Your task to perform on an android device: toggle show notifications on the lock screen Image 0: 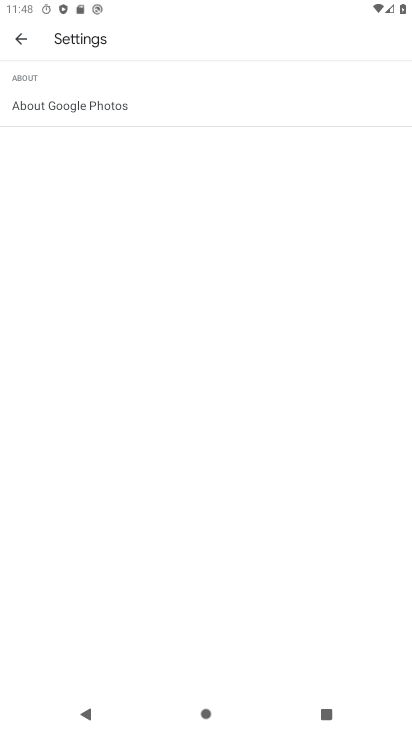
Step 0: press home button
Your task to perform on an android device: toggle show notifications on the lock screen Image 1: 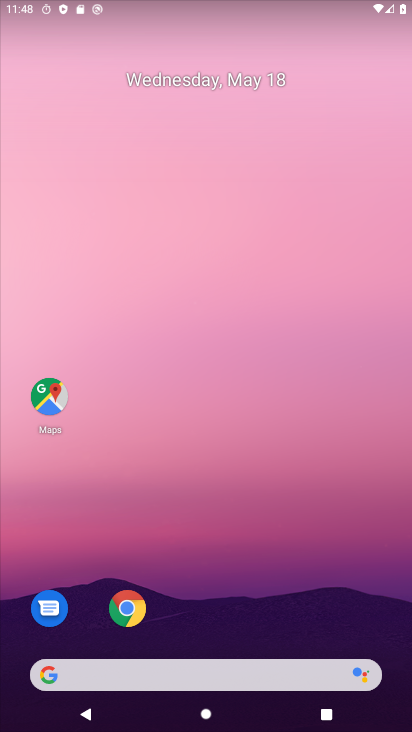
Step 1: drag from (245, 636) to (177, 163)
Your task to perform on an android device: toggle show notifications on the lock screen Image 2: 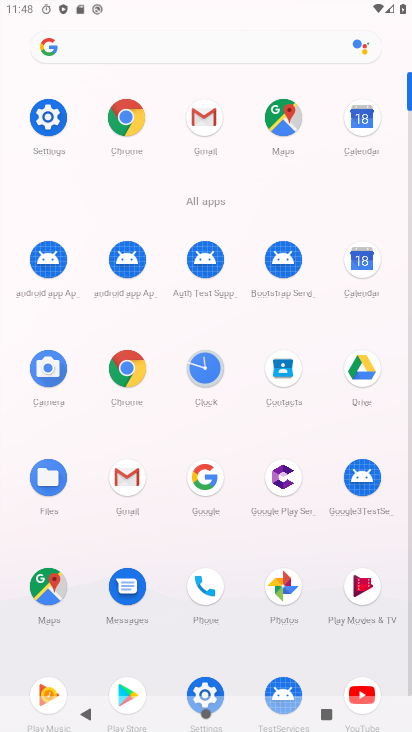
Step 2: click (43, 122)
Your task to perform on an android device: toggle show notifications on the lock screen Image 3: 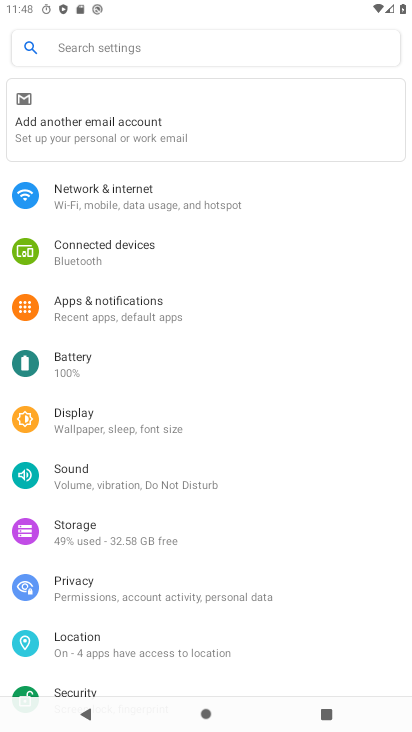
Step 3: click (119, 305)
Your task to perform on an android device: toggle show notifications on the lock screen Image 4: 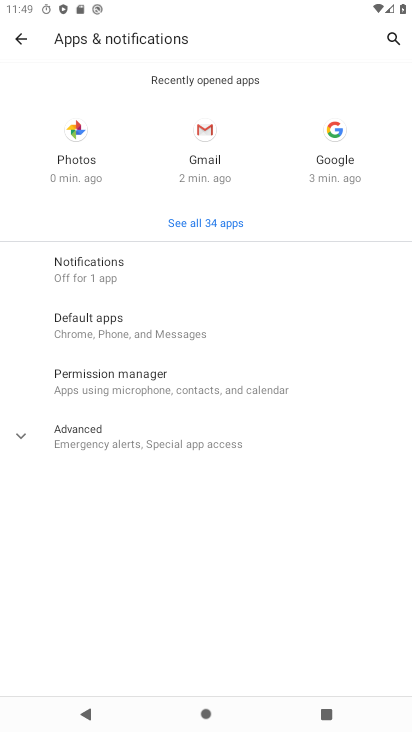
Step 4: press home button
Your task to perform on an android device: toggle show notifications on the lock screen Image 5: 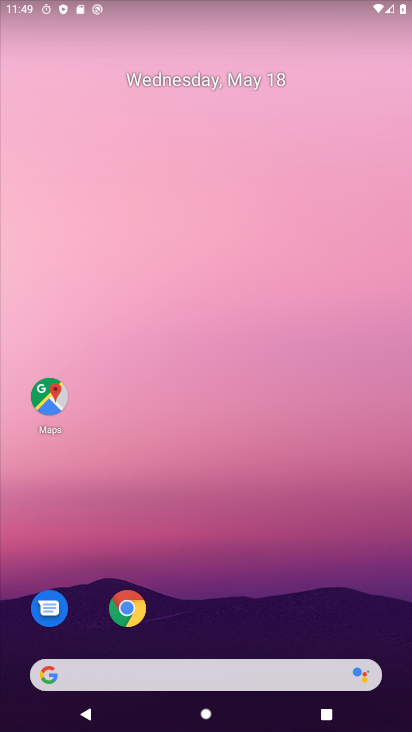
Step 5: drag from (216, 620) to (134, 176)
Your task to perform on an android device: toggle show notifications on the lock screen Image 6: 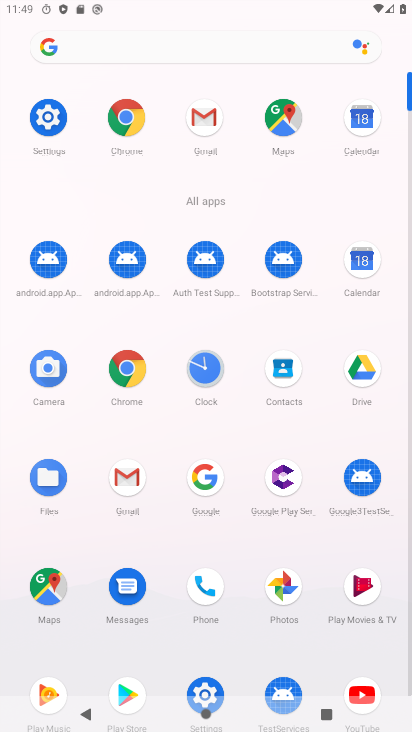
Step 6: click (37, 124)
Your task to perform on an android device: toggle show notifications on the lock screen Image 7: 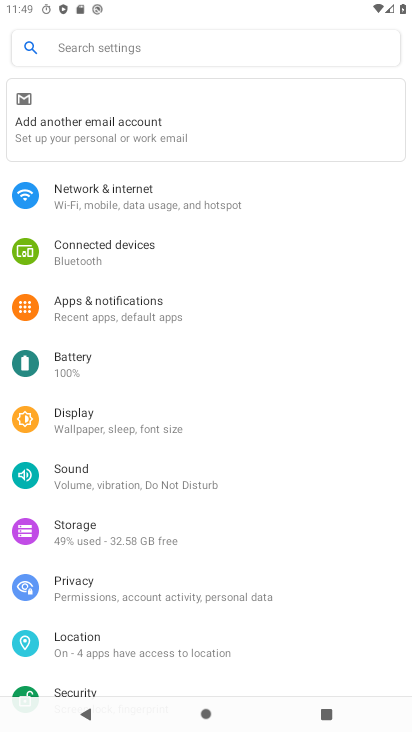
Step 7: click (181, 295)
Your task to perform on an android device: toggle show notifications on the lock screen Image 8: 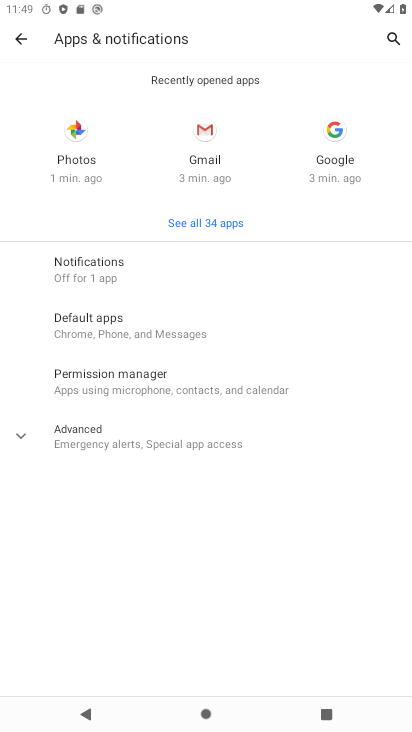
Step 8: click (178, 282)
Your task to perform on an android device: toggle show notifications on the lock screen Image 9: 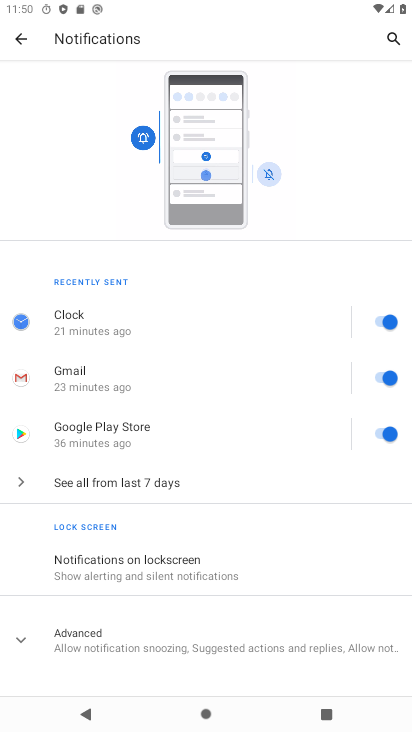
Step 9: click (225, 552)
Your task to perform on an android device: toggle show notifications on the lock screen Image 10: 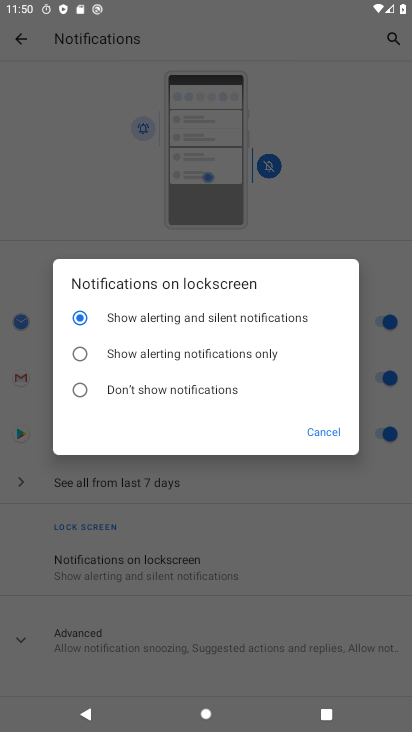
Step 10: click (256, 352)
Your task to perform on an android device: toggle show notifications on the lock screen Image 11: 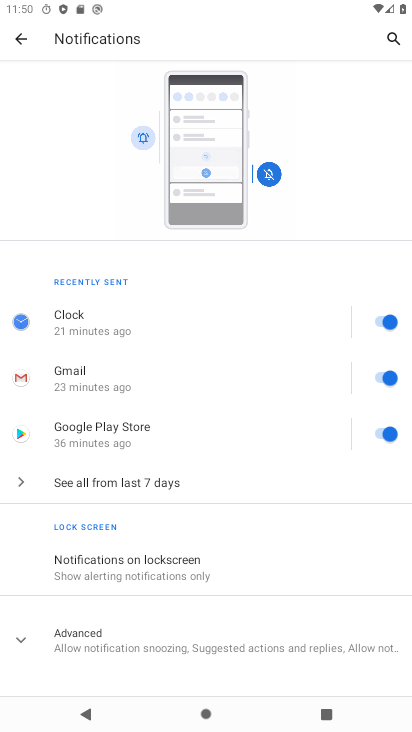
Step 11: task complete